Your task to perform on an android device: Go to eBay Image 0: 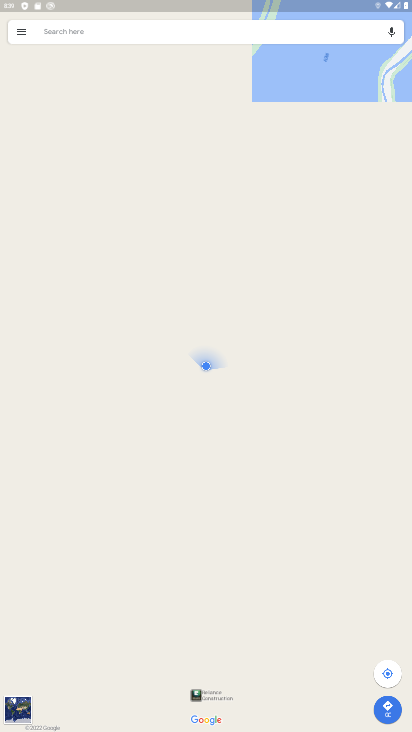
Step 0: press home button
Your task to perform on an android device: Go to eBay Image 1: 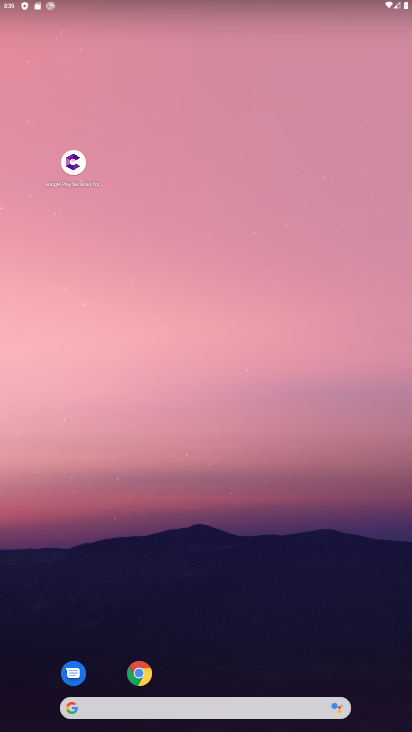
Step 1: click (130, 672)
Your task to perform on an android device: Go to eBay Image 2: 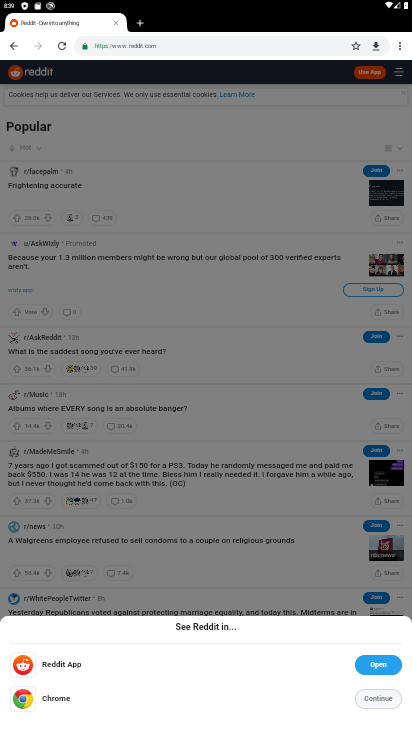
Step 2: click (197, 318)
Your task to perform on an android device: Go to eBay Image 3: 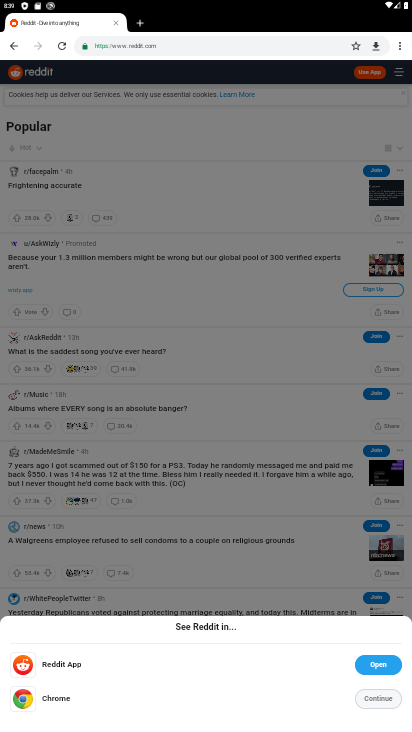
Step 3: click (138, 28)
Your task to perform on an android device: Go to eBay Image 4: 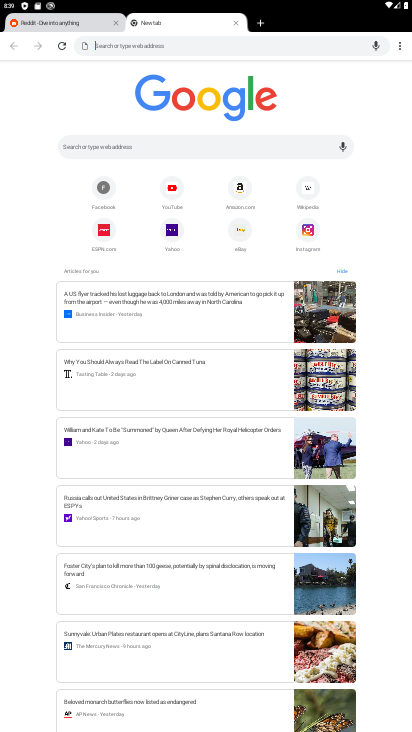
Step 4: click (242, 228)
Your task to perform on an android device: Go to eBay Image 5: 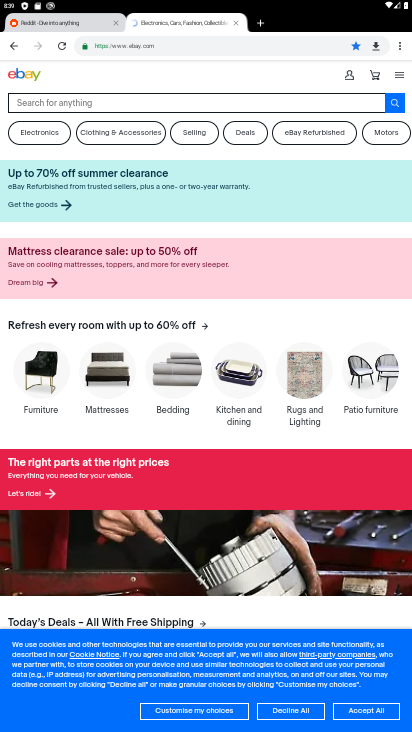
Step 5: task complete